Your task to perform on an android device: toggle show notifications on the lock screen Image 0: 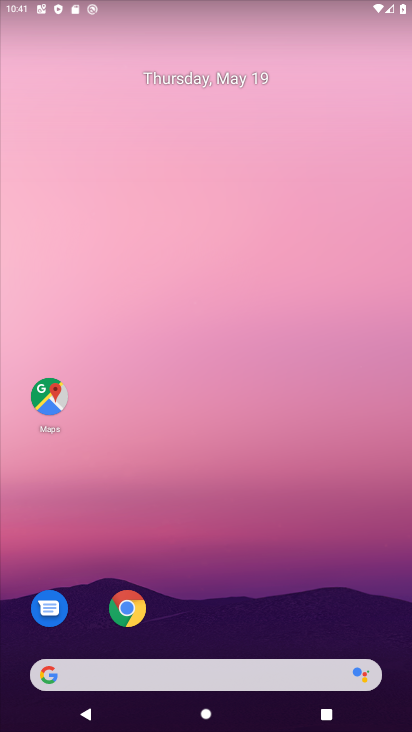
Step 0: drag from (395, 683) to (360, 275)
Your task to perform on an android device: toggle show notifications on the lock screen Image 1: 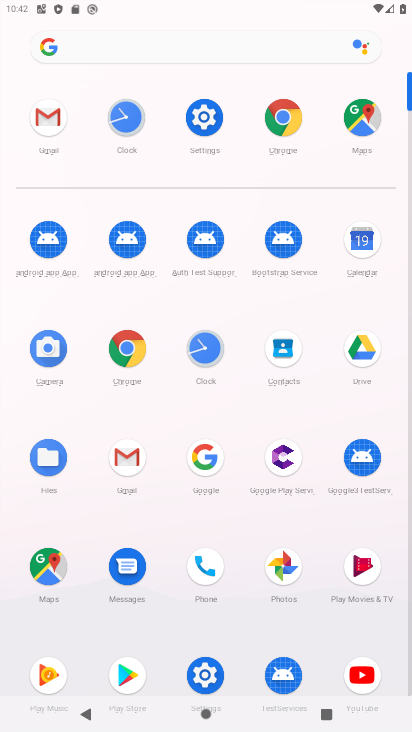
Step 1: click (202, 114)
Your task to perform on an android device: toggle show notifications on the lock screen Image 2: 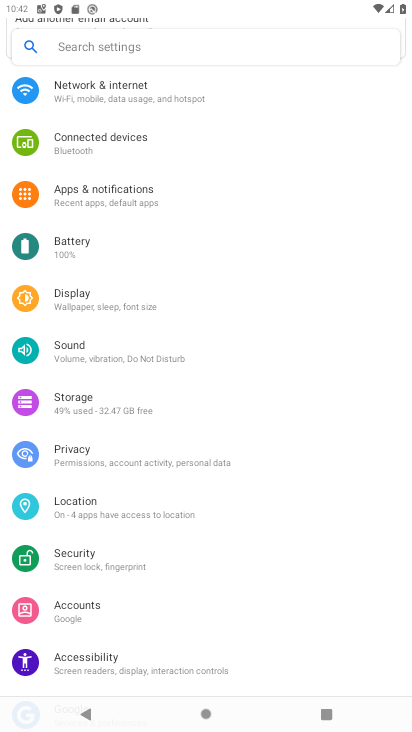
Step 2: click (98, 191)
Your task to perform on an android device: toggle show notifications on the lock screen Image 3: 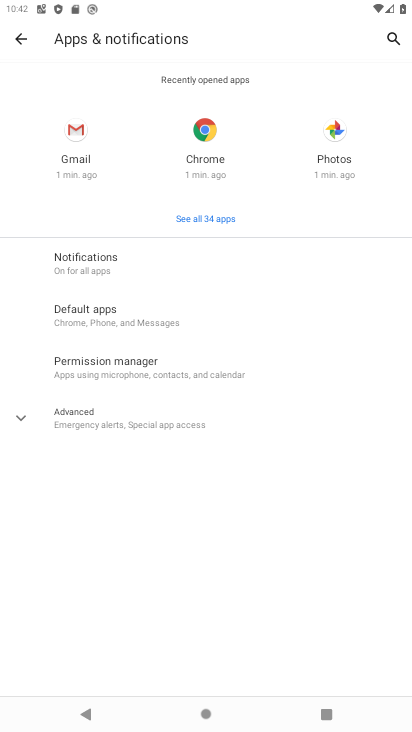
Step 3: click (79, 260)
Your task to perform on an android device: toggle show notifications on the lock screen Image 4: 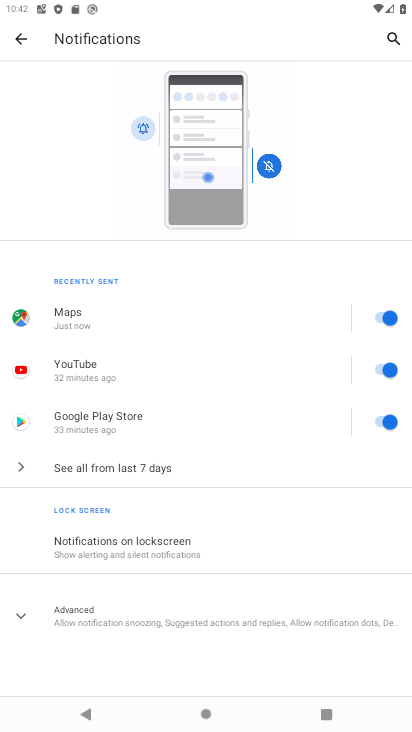
Step 4: click (124, 538)
Your task to perform on an android device: toggle show notifications on the lock screen Image 5: 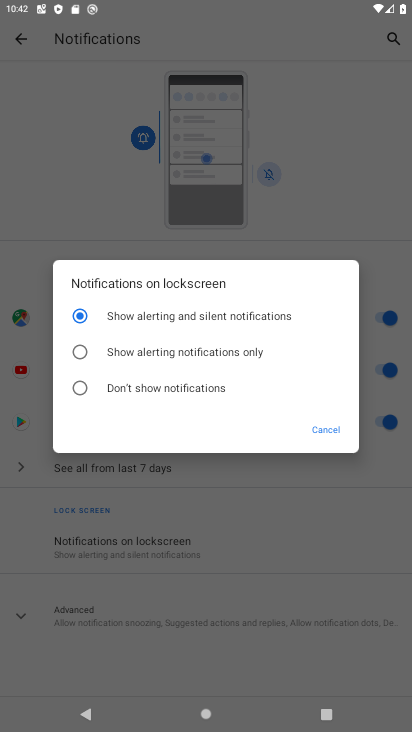
Step 5: click (81, 351)
Your task to perform on an android device: toggle show notifications on the lock screen Image 6: 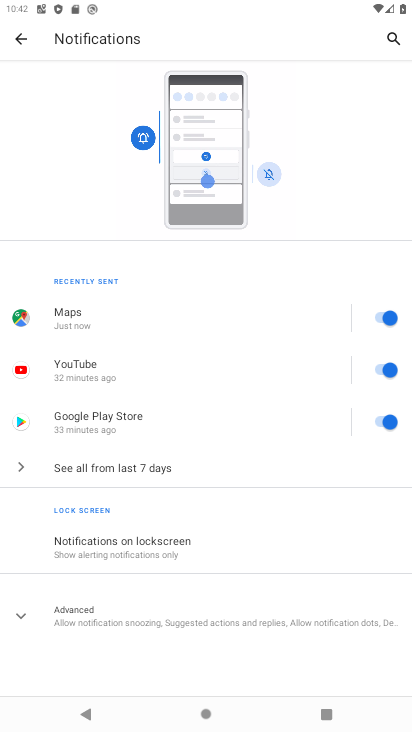
Step 6: task complete